Your task to perform on an android device: search for starred emails in the gmail app Image 0: 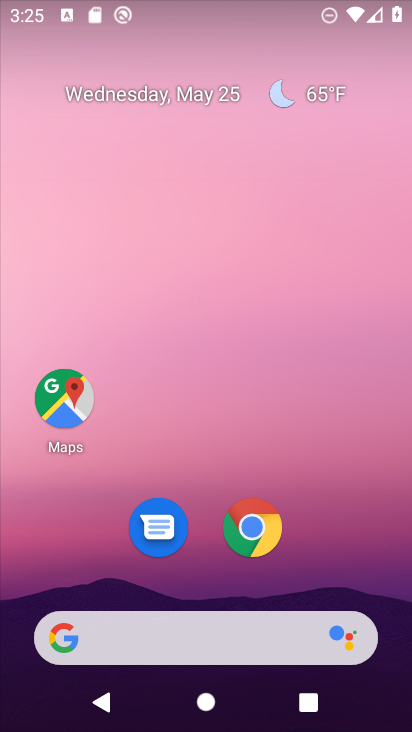
Step 0: drag from (294, 602) to (387, 11)
Your task to perform on an android device: search for starred emails in the gmail app Image 1: 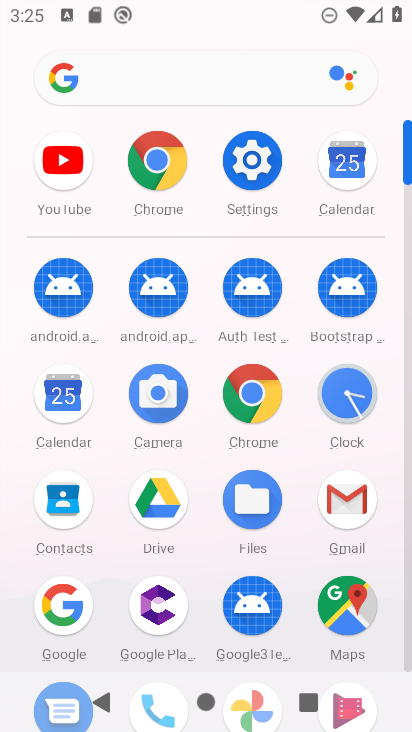
Step 1: click (343, 501)
Your task to perform on an android device: search for starred emails in the gmail app Image 2: 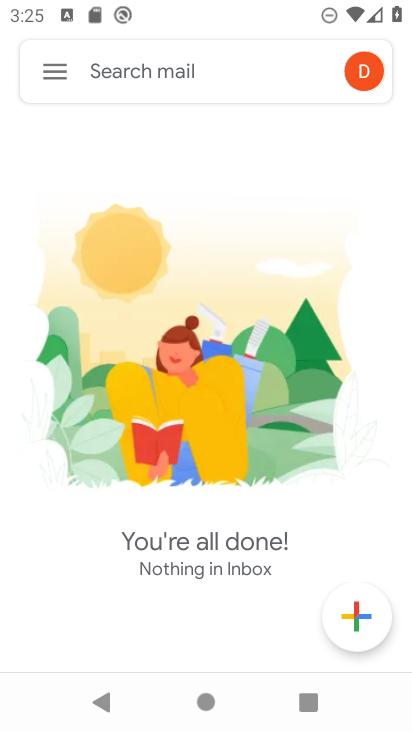
Step 2: click (37, 64)
Your task to perform on an android device: search for starred emails in the gmail app Image 3: 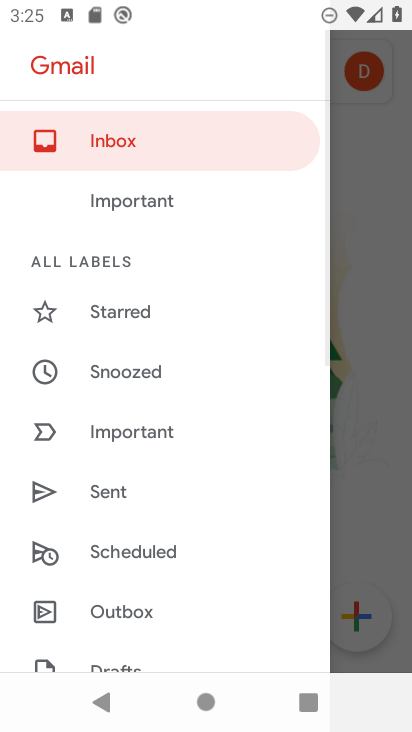
Step 3: click (166, 326)
Your task to perform on an android device: search for starred emails in the gmail app Image 4: 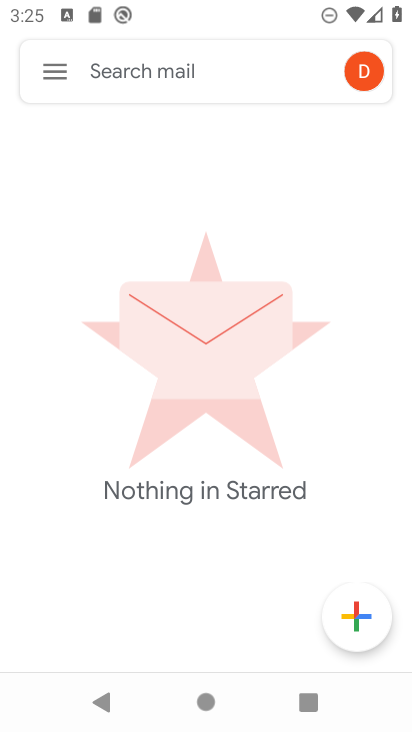
Step 4: task complete